Your task to perform on an android device: See recent photos Image 0: 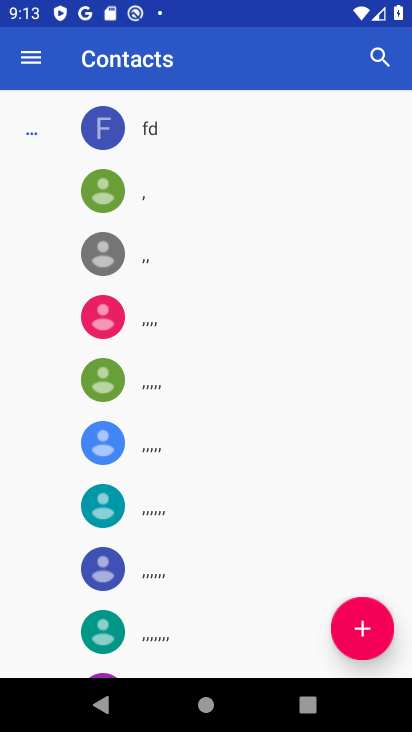
Step 0: press home button
Your task to perform on an android device: See recent photos Image 1: 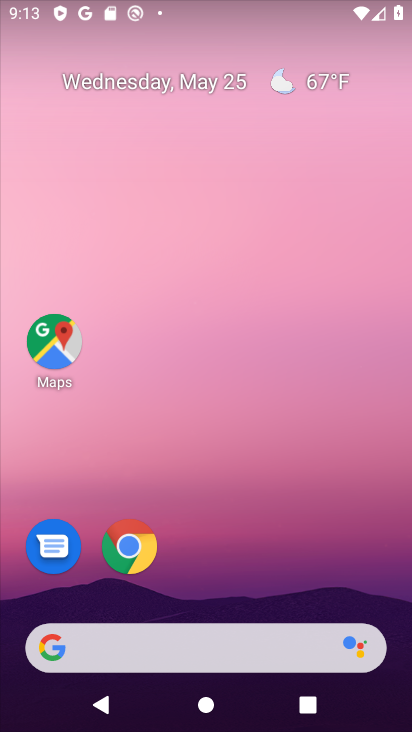
Step 1: drag from (166, 619) to (269, 103)
Your task to perform on an android device: See recent photos Image 2: 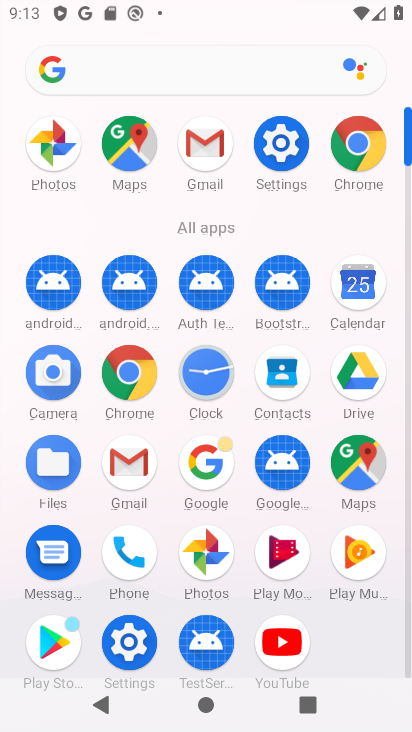
Step 2: click (207, 558)
Your task to perform on an android device: See recent photos Image 3: 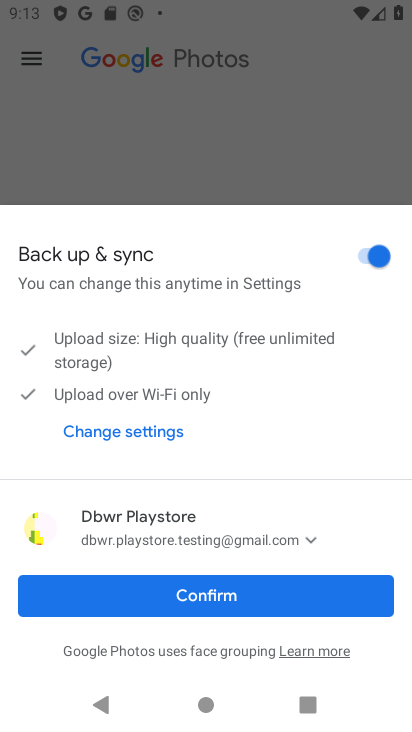
Step 3: click (225, 601)
Your task to perform on an android device: See recent photos Image 4: 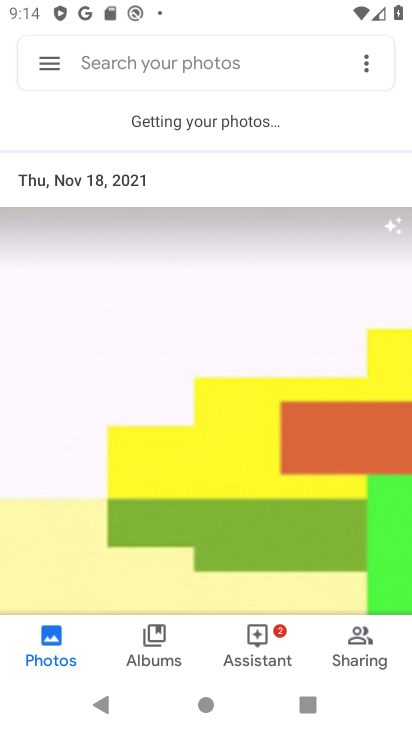
Step 4: task complete